Your task to perform on an android device: turn off javascript in the chrome app Image 0: 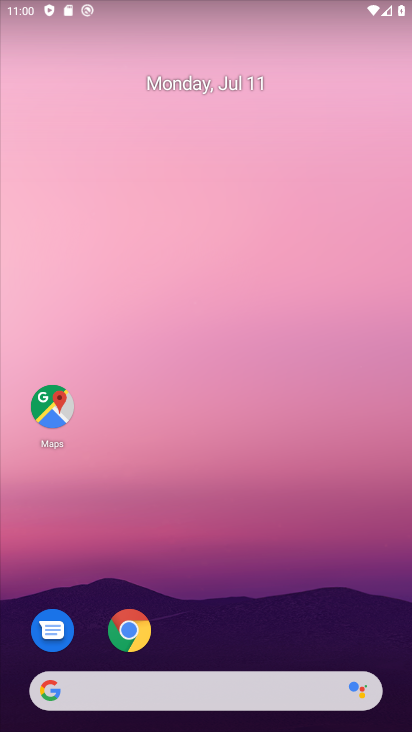
Step 0: click (120, 628)
Your task to perform on an android device: turn off javascript in the chrome app Image 1: 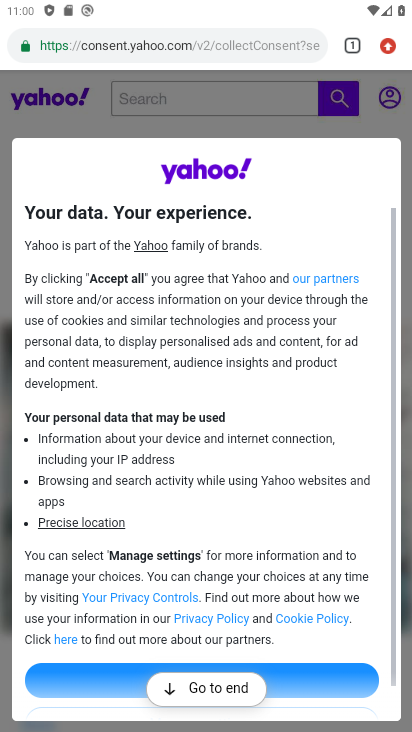
Step 1: click (392, 46)
Your task to perform on an android device: turn off javascript in the chrome app Image 2: 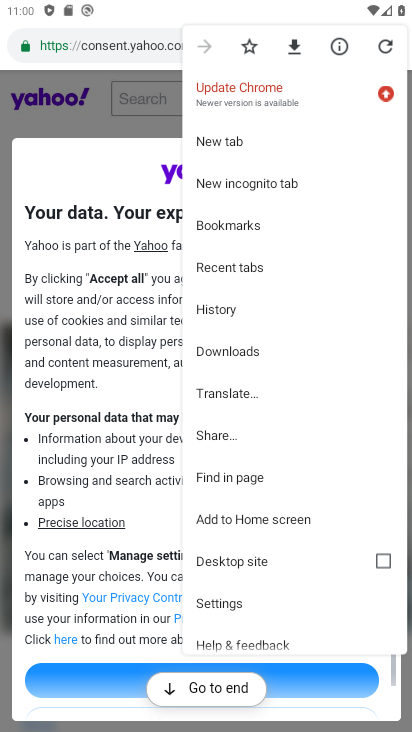
Step 2: click (226, 613)
Your task to perform on an android device: turn off javascript in the chrome app Image 3: 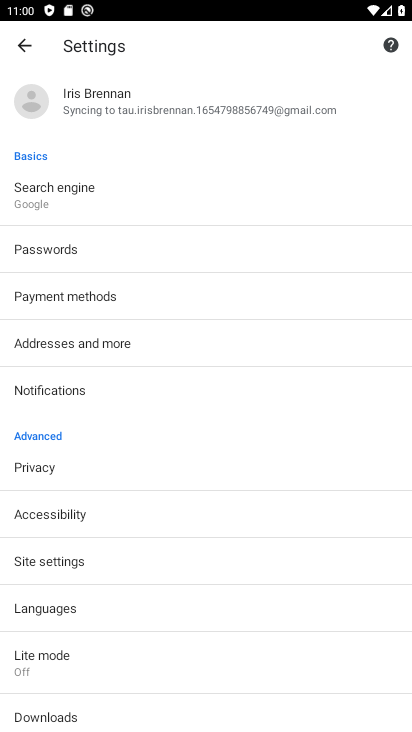
Step 3: click (111, 553)
Your task to perform on an android device: turn off javascript in the chrome app Image 4: 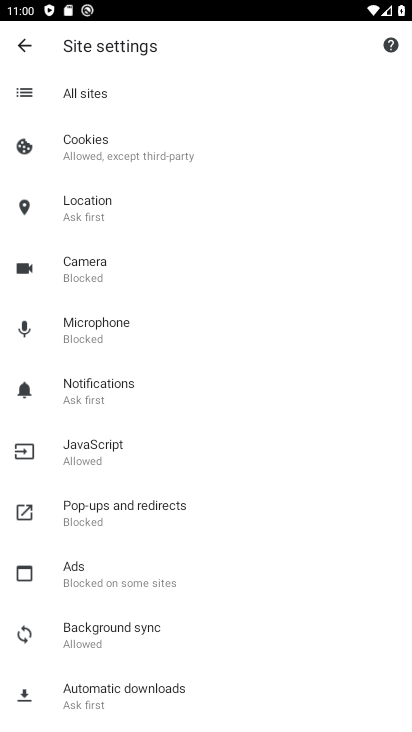
Step 4: click (121, 467)
Your task to perform on an android device: turn off javascript in the chrome app Image 5: 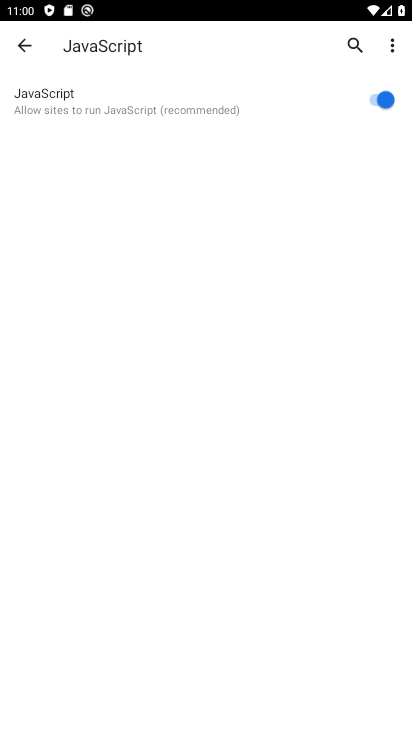
Step 5: click (387, 99)
Your task to perform on an android device: turn off javascript in the chrome app Image 6: 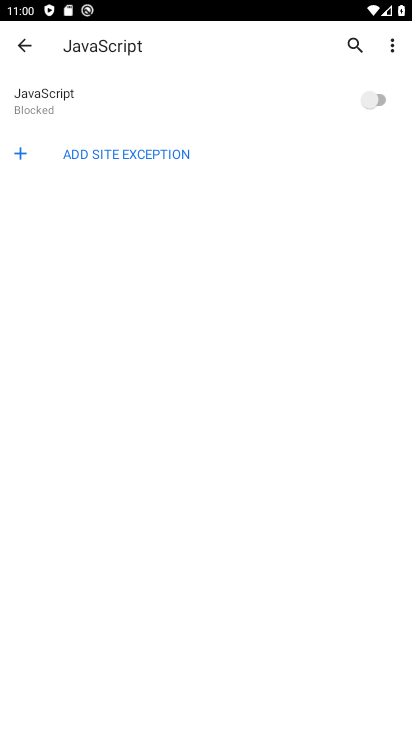
Step 6: task complete